Your task to perform on an android device: Go to calendar. Show me events next week Image 0: 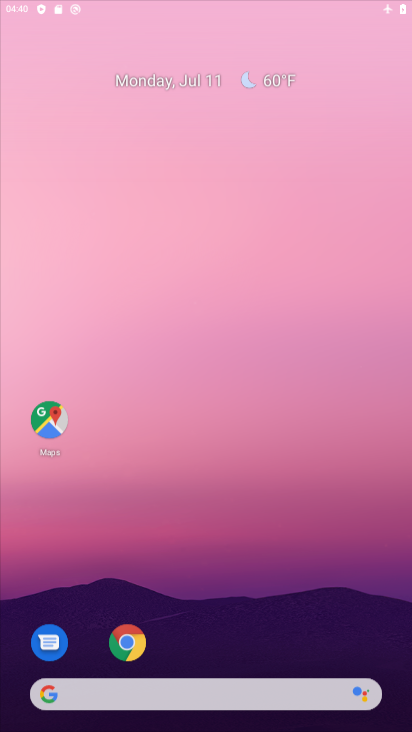
Step 0: click (126, 643)
Your task to perform on an android device: Go to calendar. Show me events next week Image 1: 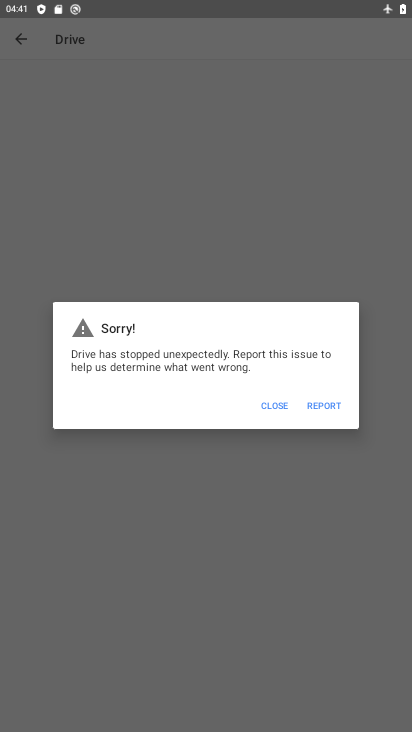
Step 1: press home button
Your task to perform on an android device: Go to calendar. Show me events next week Image 2: 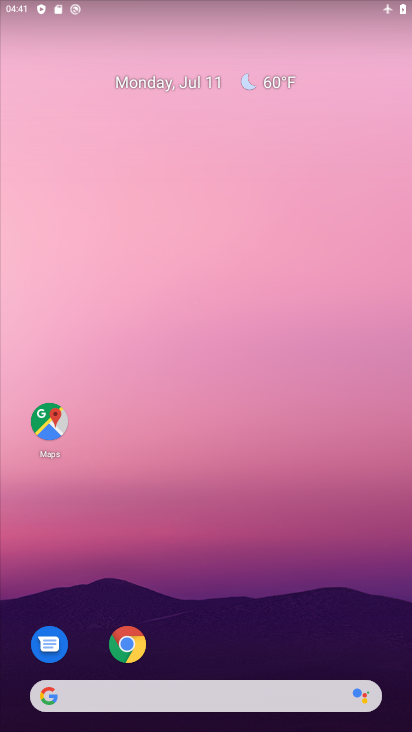
Step 2: drag from (178, 660) to (205, 231)
Your task to perform on an android device: Go to calendar. Show me events next week Image 3: 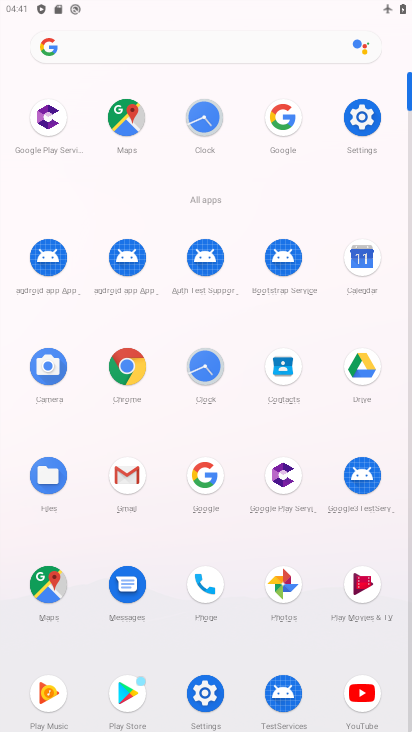
Step 3: click (358, 276)
Your task to perform on an android device: Go to calendar. Show me events next week Image 4: 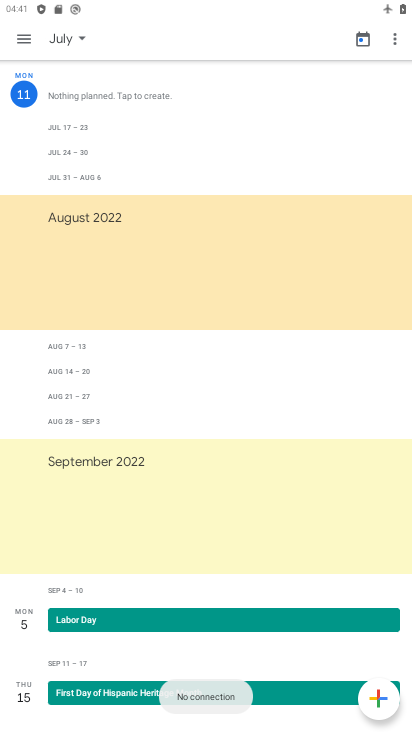
Step 4: click (69, 43)
Your task to perform on an android device: Go to calendar. Show me events next week Image 5: 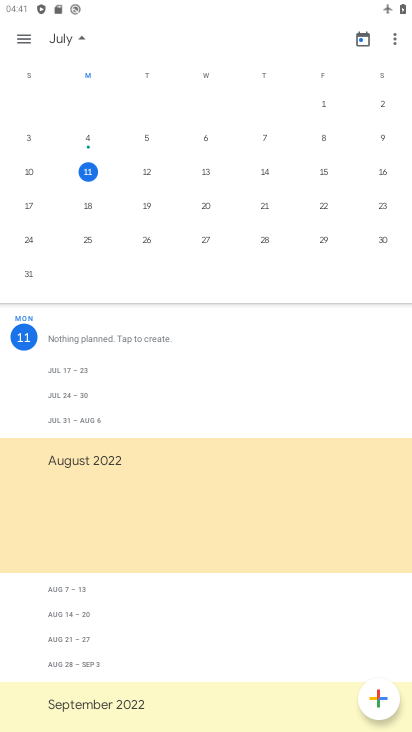
Step 5: click (144, 203)
Your task to perform on an android device: Go to calendar. Show me events next week Image 6: 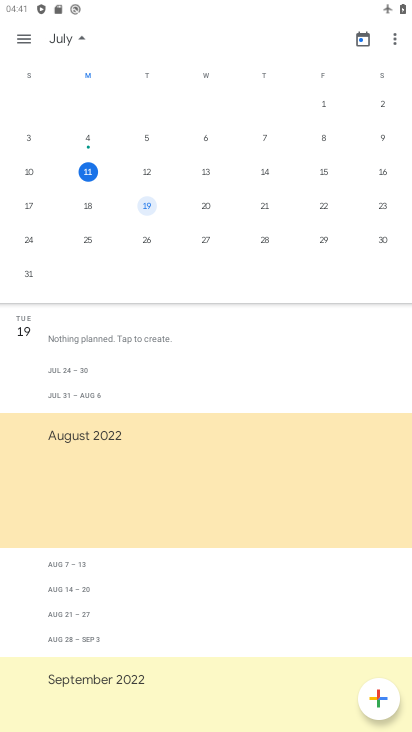
Step 6: task complete